Your task to perform on an android device: open chrome and create a bookmark for the current page Image 0: 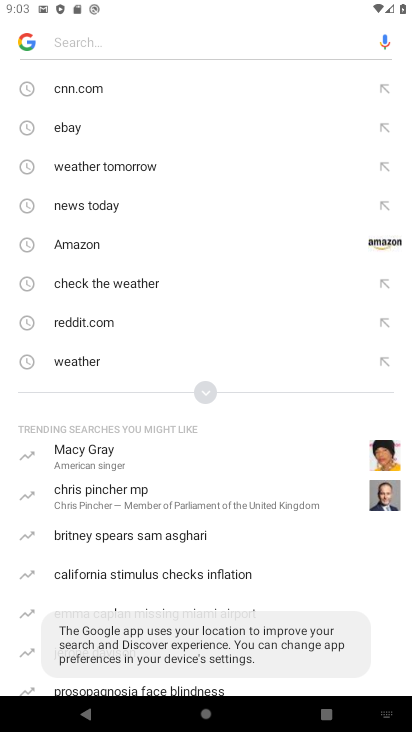
Step 0: press home button
Your task to perform on an android device: open chrome and create a bookmark for the current page Image 1: 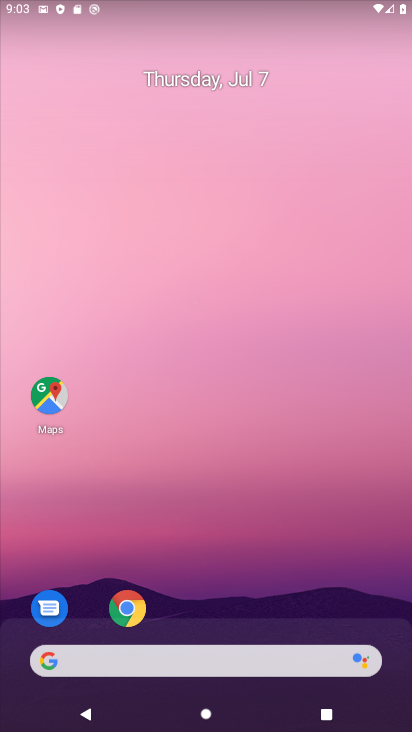
Step 1: click (126, 598)
Your task to perform on an android device: open chrome and create a bookmark for the current page Image 2: 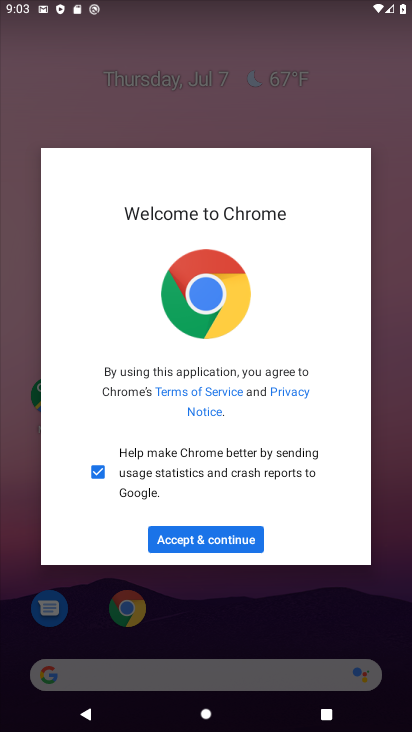
Step 2: click (215, 525)
Your task to perform on an android device: open chrome and create a bookmark for the current page Image 3: 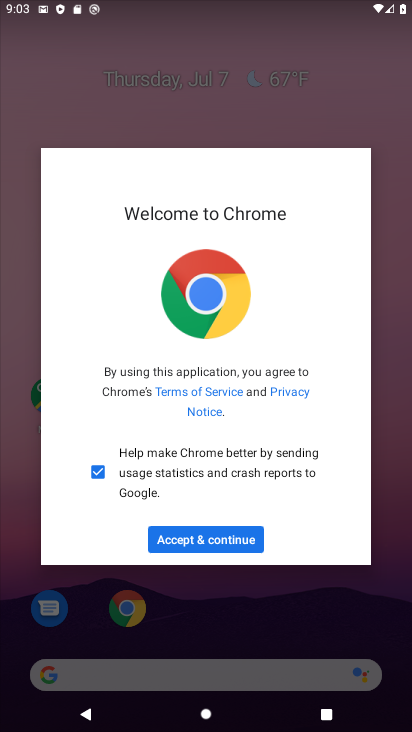
Step 3: click (215, 532)
Your task to perform on an android device: open chrome and create a bookmark for the current page Image 4: 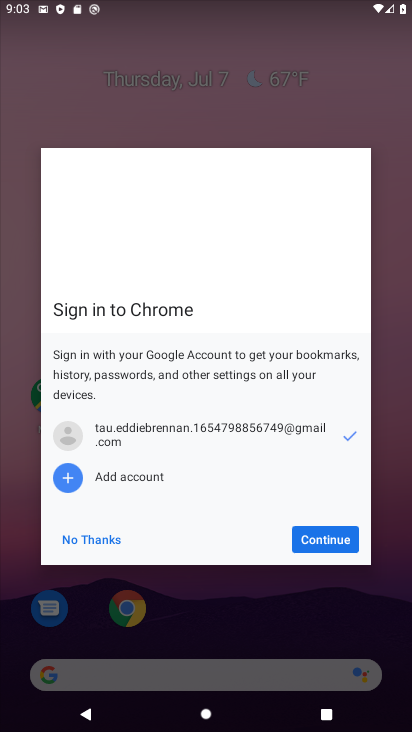
Step 4: click (321, 534)
Your task to perform on an android device: open chrome and create a bookmark for the current page Image 5: 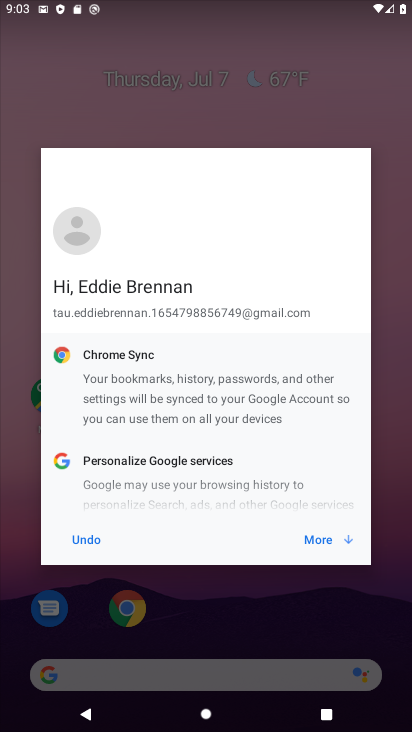
Step 5: click (320, 538)
Your task to perform on an android device: open chrome and create a bookmark for the current page Image 6: 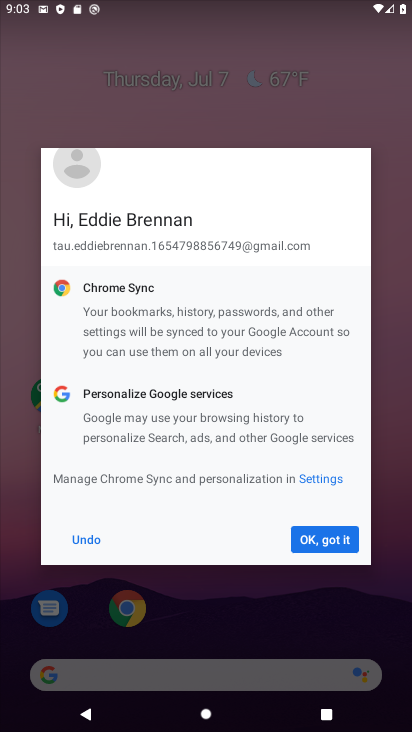
Step 6: click (334, 545)
Your task to perform on an android device: open chrome and create a bookmark for the current page Image 7: 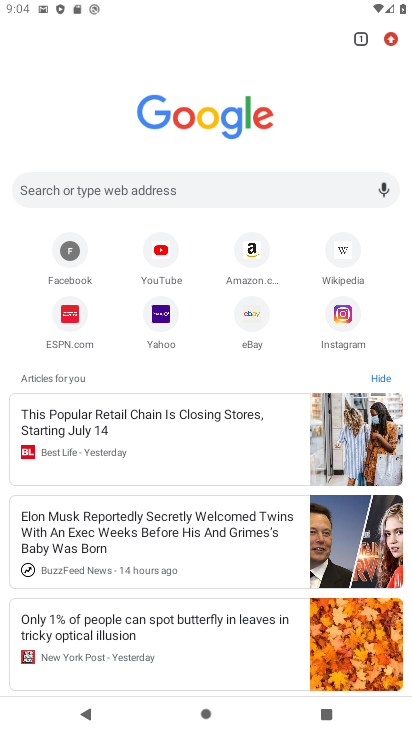
Step 7: click (400, 49)
Your task to perform on an android device: open chrome and create a bookmark for the current page Image 8: 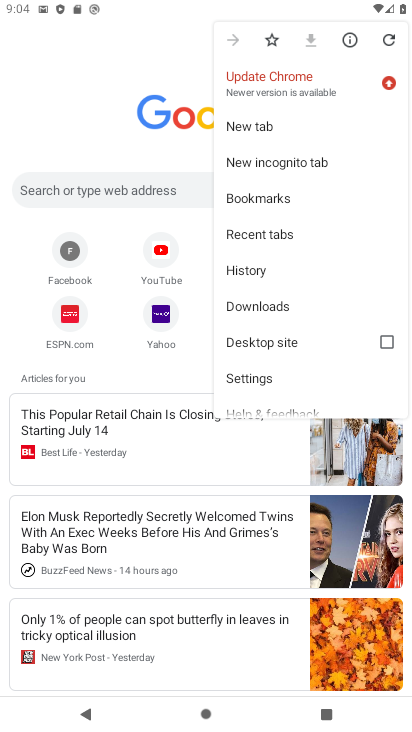
Step 8: click (263, 193)
Your task to perform on an android device: open chrome and create a bookmark for the current page Image 9: 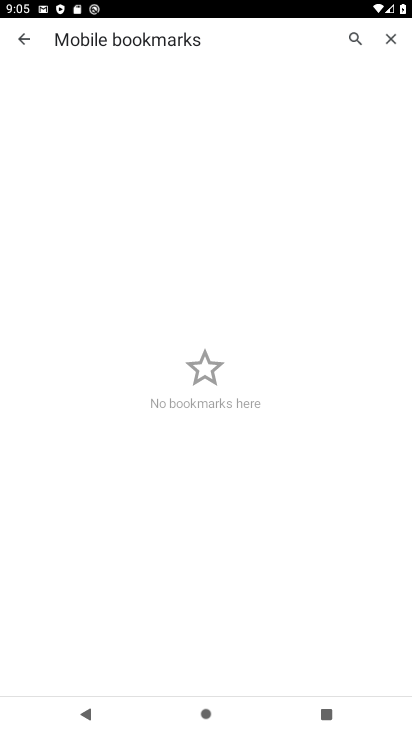
Step 9: task complete